Your task to perform on an android device: open a bookmark in the chrome app Image 0: 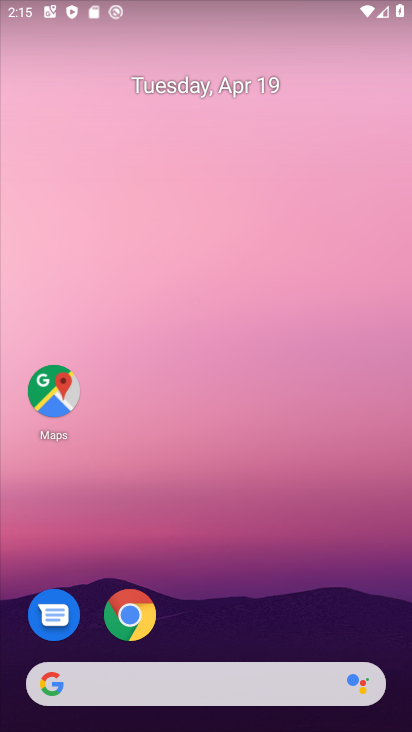
Step 0: click (128, 601)
Your task to perform on an android device: open a bookmark in the chrome app Image 1: 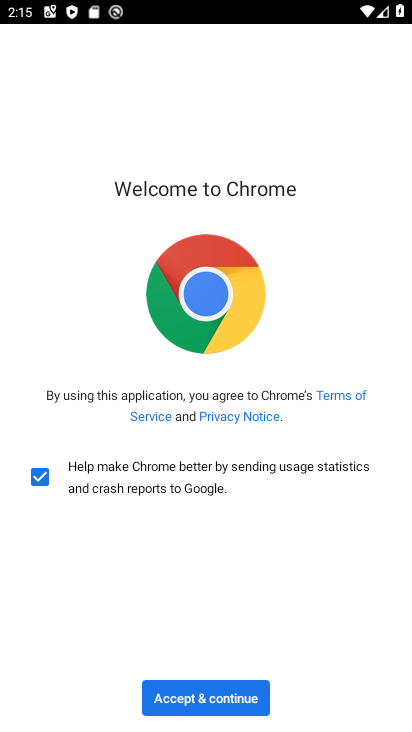
Step 1: click (202, 702)
Your task to perform on an android device: open a bookmark in the chrome app Image 2: 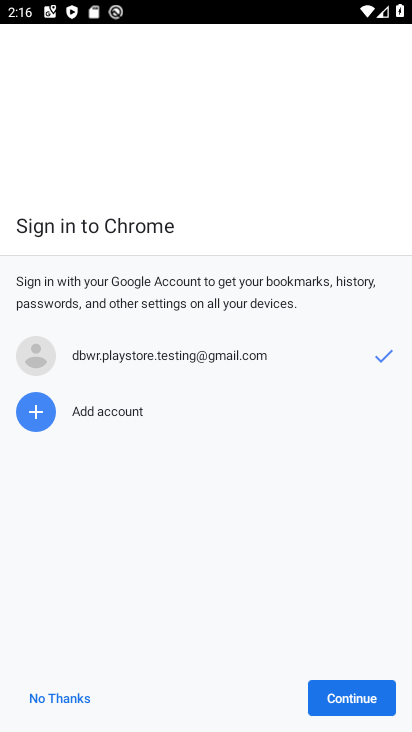
Step 2: click (330, 706)
Your task to perform on an android device: open a bookmark in the chrome app Image 3: 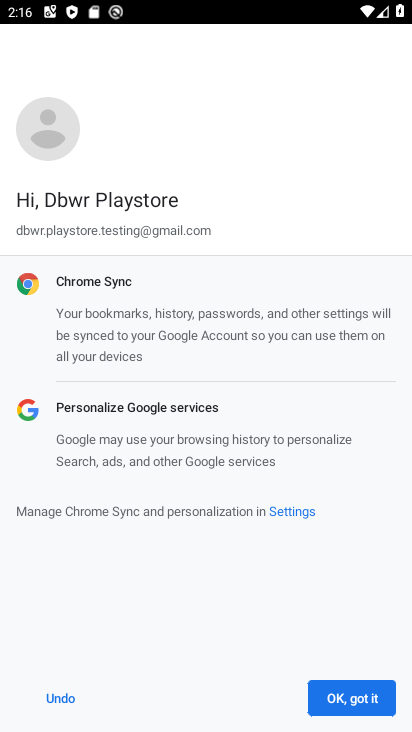
Step 3: click (330, 706)
Your task to perform on an android device: open a bookmark in the chrome app Image 4: 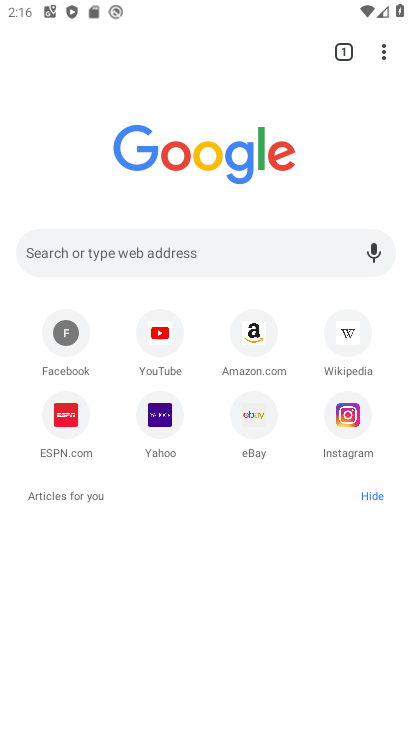
Step 4: click (384, 51)
Your task to perform on an android device: open a bookmark in the chrome app Image 5: 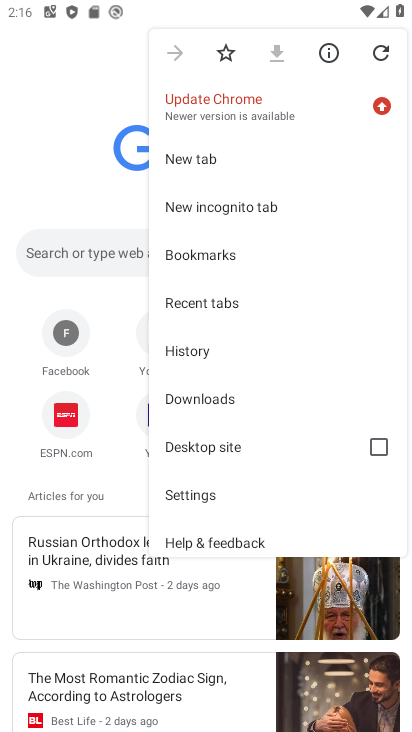
Step 5: click (210, 262)
Your task to perform on an android device: open a bookmark in the chrome app Image 6: 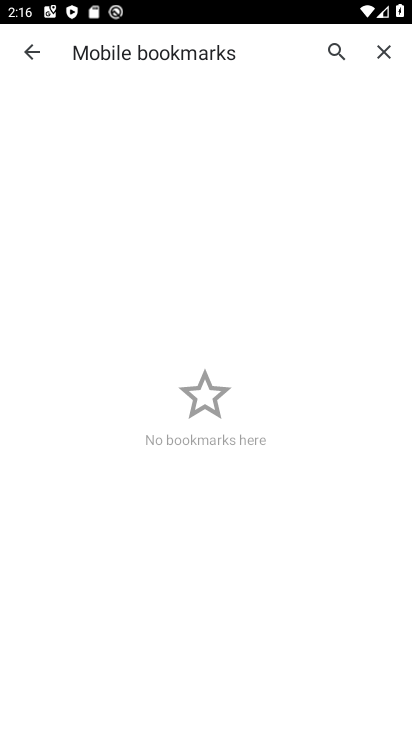
Step 6: task complete